Your task to perform on an android device: toggle sleep mode Image 0: 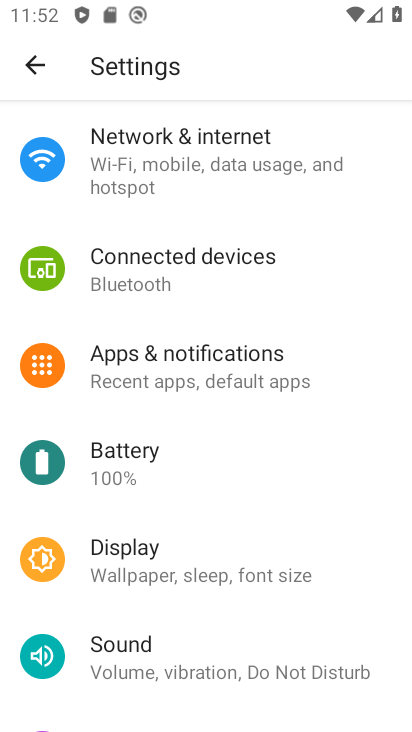
Step 0: press home button
Your task to perform on an android device: toggle sleep mode Image 1: 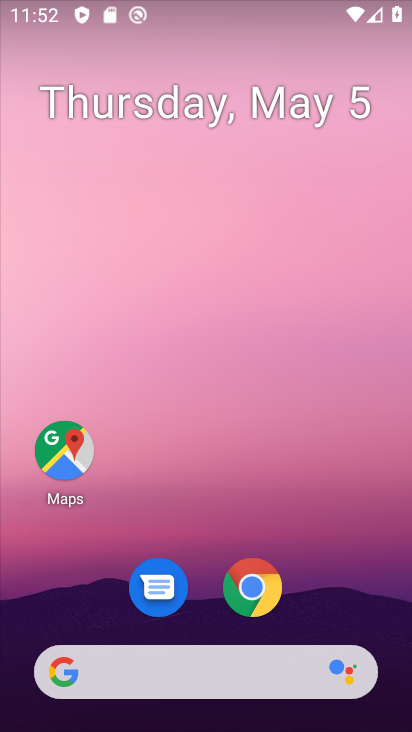
Step 1: drag from (375, 609) to (329, 253)
Your task to perform on an android device: toggle sleep mode Image 2: 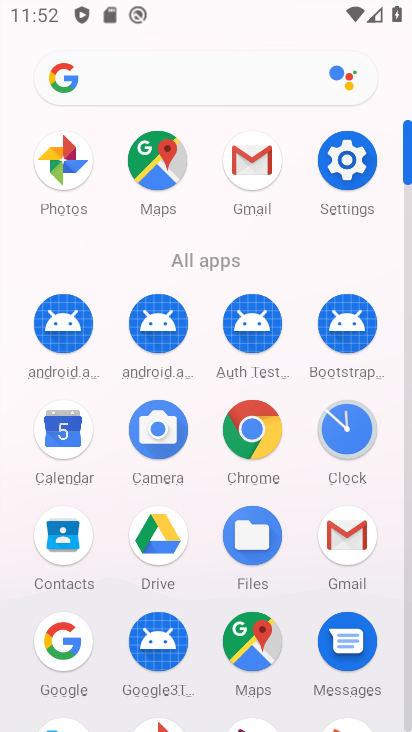
Step 2: click (339, 162)
Your task to perform on an android device: toggle sleep mode Image 3: 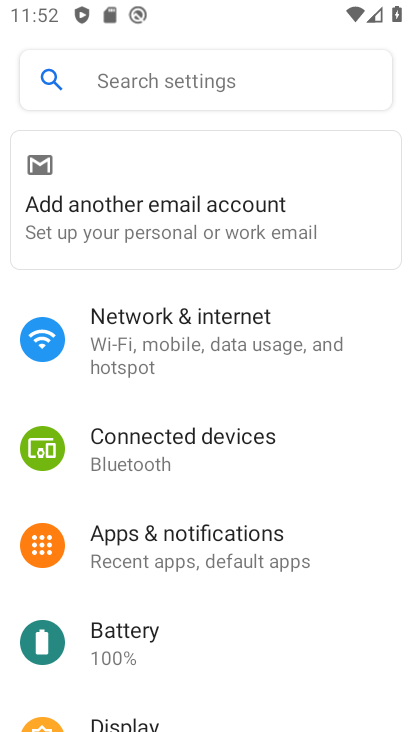
Step 3: drag from (348, 617) to (284, 282)
Your task to perform on an android device: toggle sleep mode Image 4: 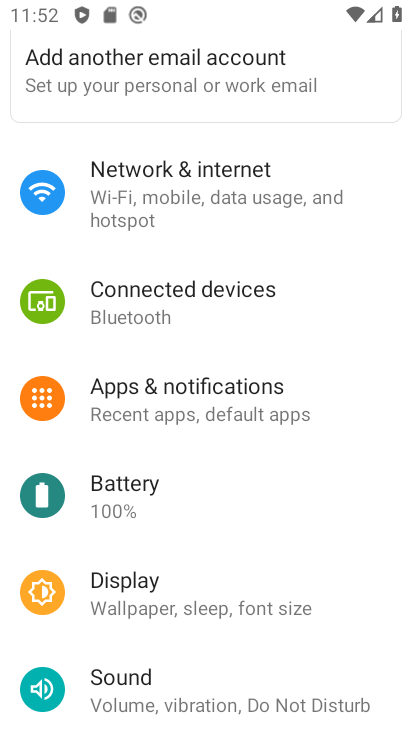
Step 4: click (202, 597)
Your task to perform on an android device: toggle sleep mode Image 5: 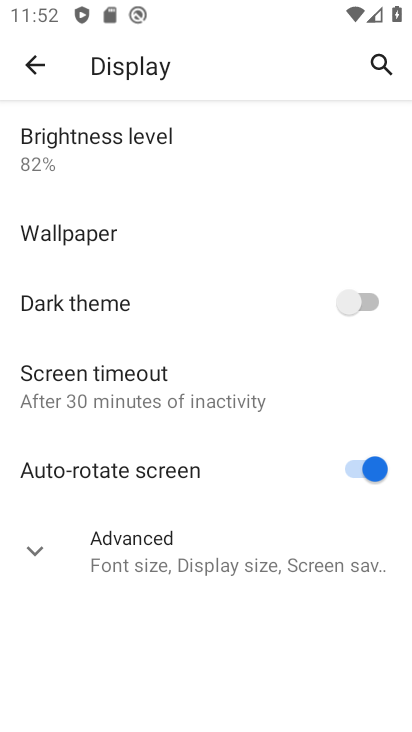
Step 5: click (153, 393)
Your task to perform on an android device: toggle sleep mode Image 6: 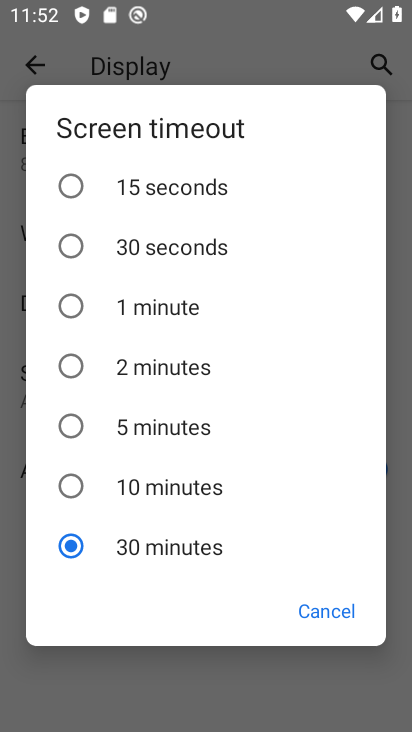
Step 6: click (62, 430)
Your task to perform on an android device: toggle sleep mode Image 7: 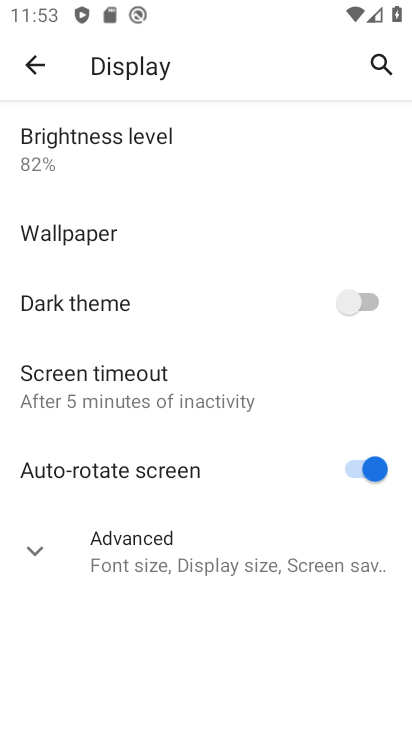
Step 7: task complete